Your task to perform on an android device: Go to battery settings Image 0: 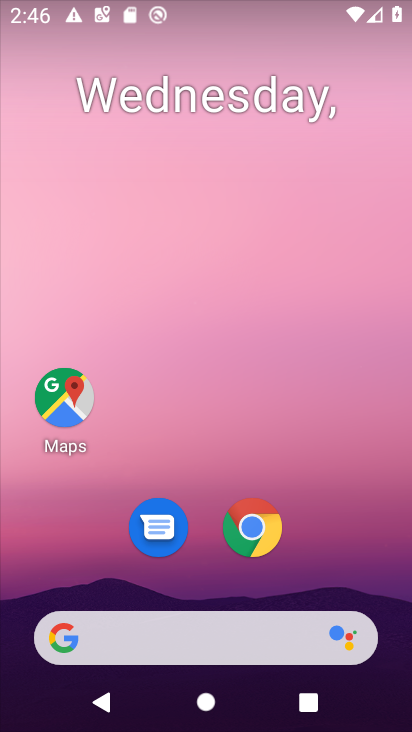
Step 0: drag from (213, 467) to (264, 11)
Your task to perform on an android device: Go to battery settings Image 1: 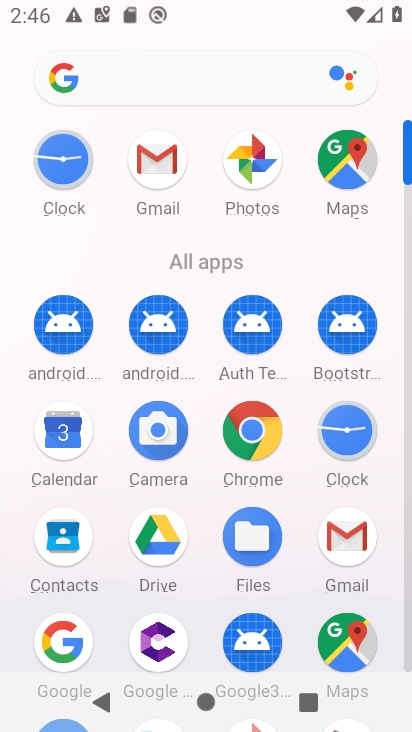
Step 1: drag from (203, 586) to (276, 210)
Your task to perform on an android device: Go to battery settings Image 2: 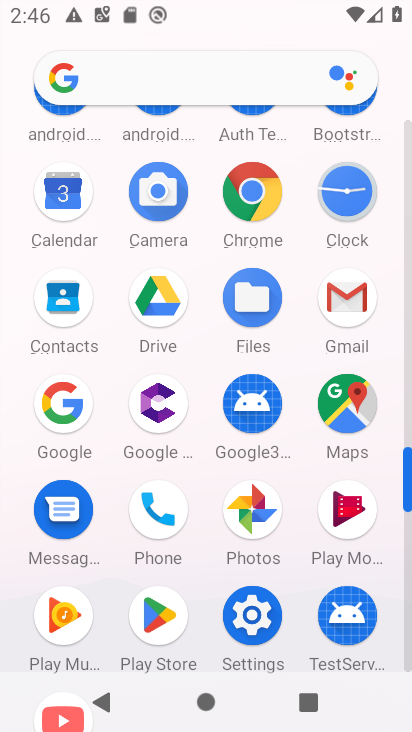
Step 2: click (248, 603)
Your task to perform on an android device: Go to battery settings Image 3: 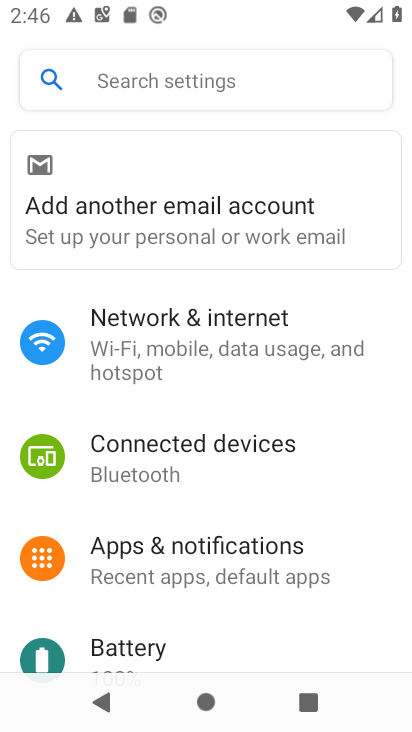
Step 3: drag from (242, 618) to (260, 317)
Your task to perform on an android device: Go to battery settings Image 4: 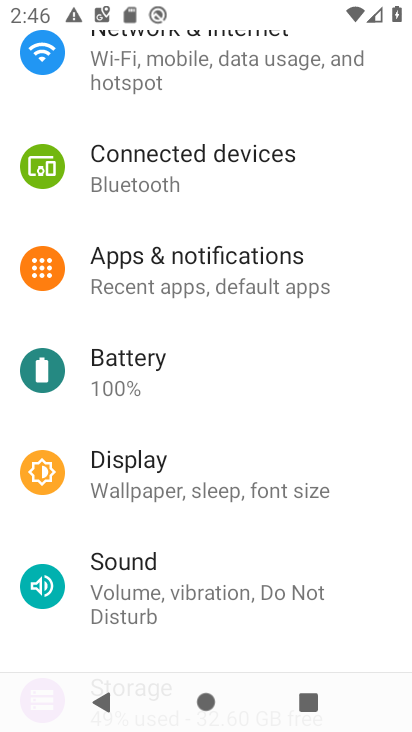
Step 4: click (147, 380)
Your task to perform on an android device: Go to battery settings Image 5: 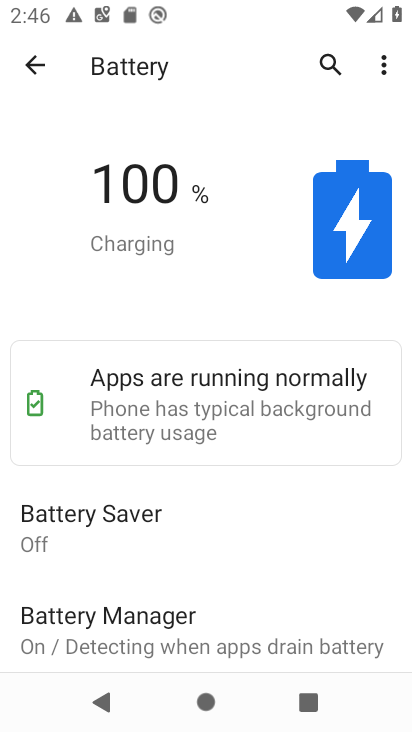
Step 5: task complete